Your task to perform on an android device: clear history in the chrome app Image 0: 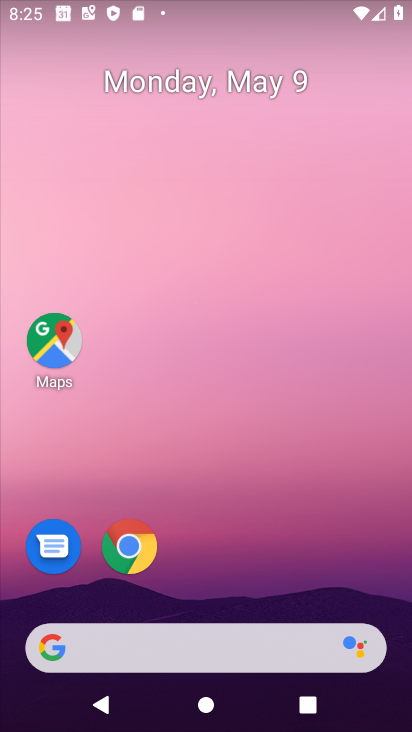
Step 0: click (125, 550)
Your task to perform on an android device: clear history in the chrome app Image 1: 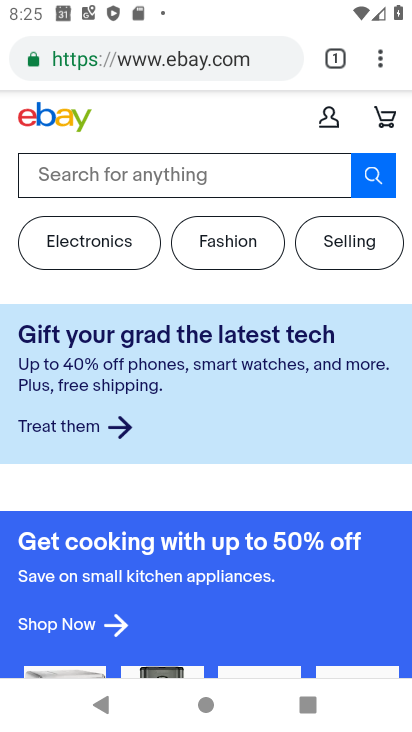
Step 1: click (383, 55)
Your task to perform on an android device: clear history in the chrome app Image 2: 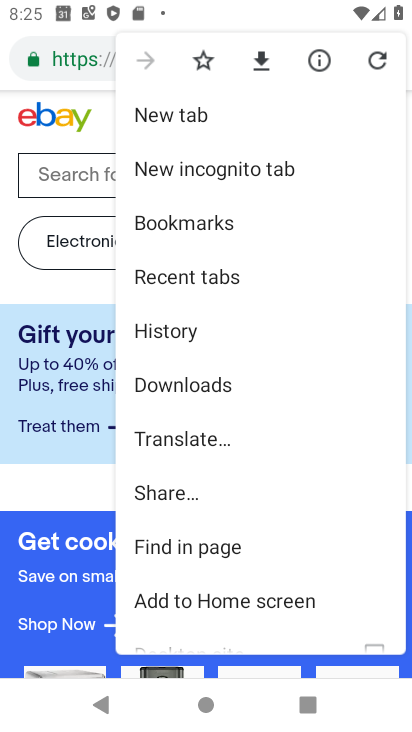
Step 2: click (189, 332)
Your task to perform on an android device: clear history in the chrome app Image 3: 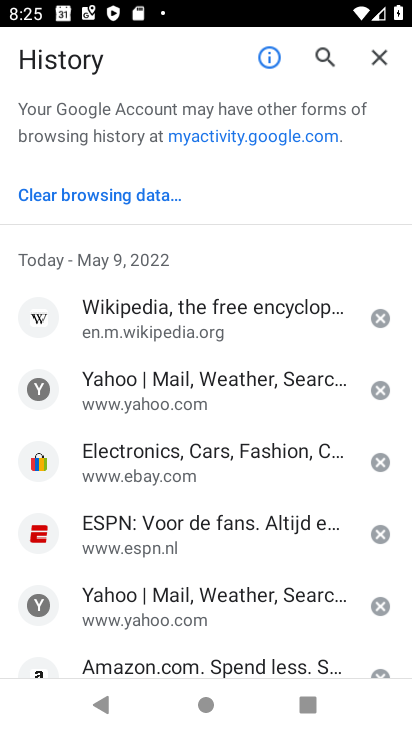
Step 3: click (108, 196)
Your task to perform on an android device: clear history in the chrome app Image 4: 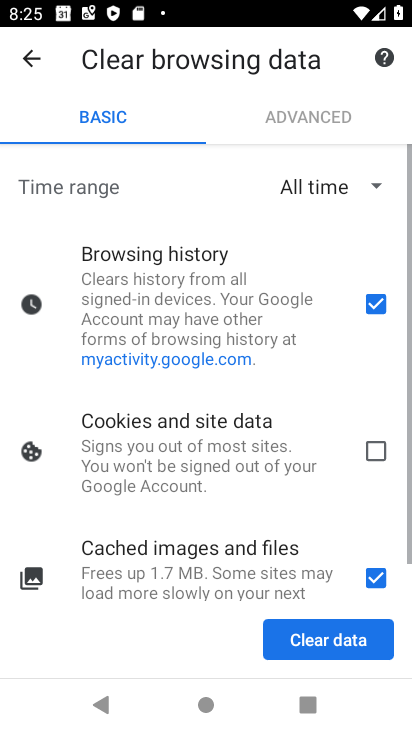
Step 4: click (329, 645)
Your task to perform on an android device: clear history in the chrome app Image 5: 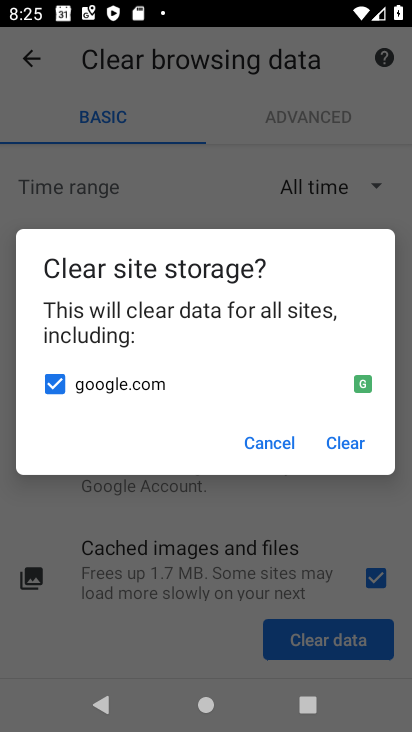
Step 5: click (346, 436)
Your task to perform on an android device: clear history in the chrome app Image 6: 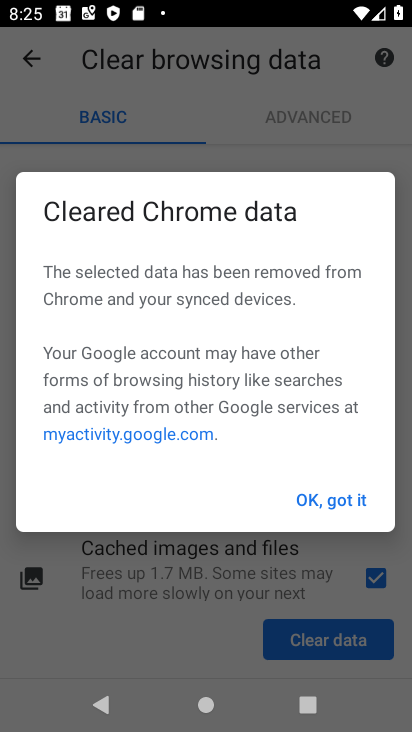
Step 6: click (326, 500)
Your task to perform on an android device: clear history in the chrome app Image 7: 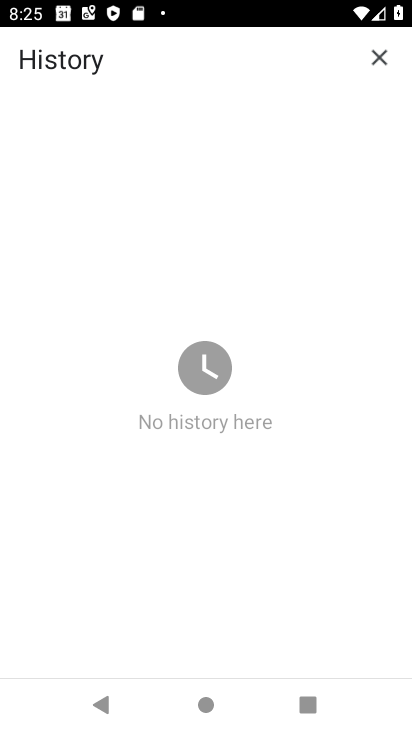
Step 7: task complete